Your task to perform on an android device: Open Amazon Image 0: 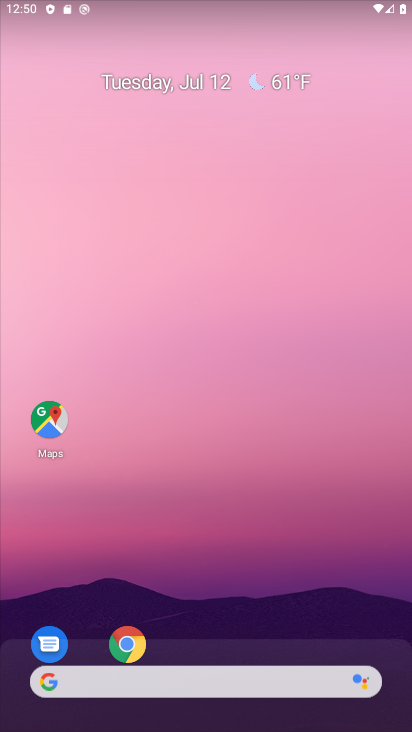
Step 0: click (129, 663)
Your task to perform on an android device: Open Amazon Image 1: 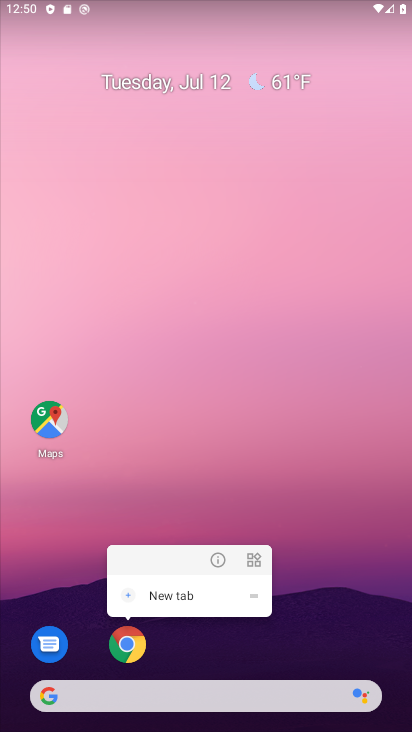
Step 1: click (129, 663)
Your task to perform on an android device: Open Amazon Image 2: 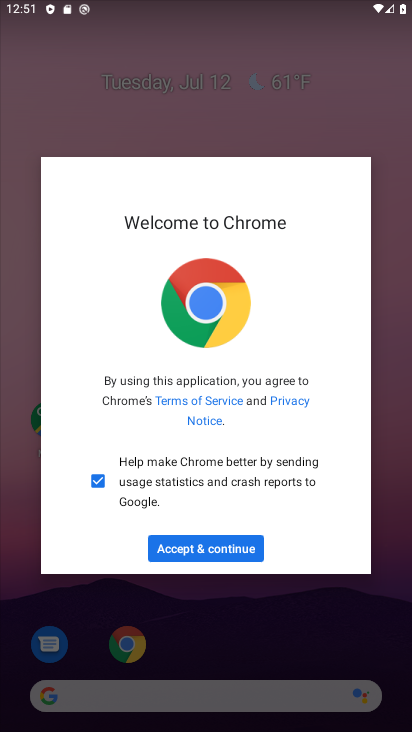
Step 2: click (218, 549)
Your task to perform on an android device: Open Amazon Image 3: 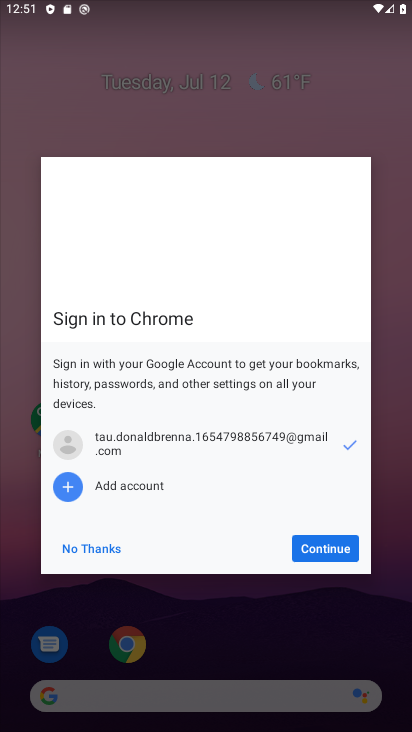
Step 3: click (332, 531)
Your task to perform on an android device: Open Amazon Image 4: 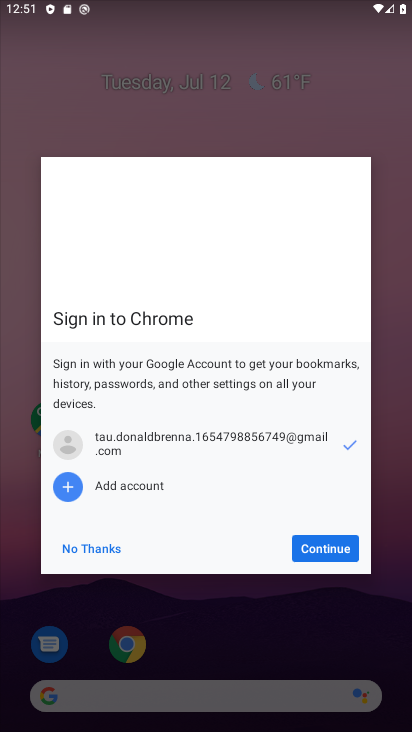
Step 4: click (343, 561)
Your task to perform on an android device: Open Amazon Image 5: 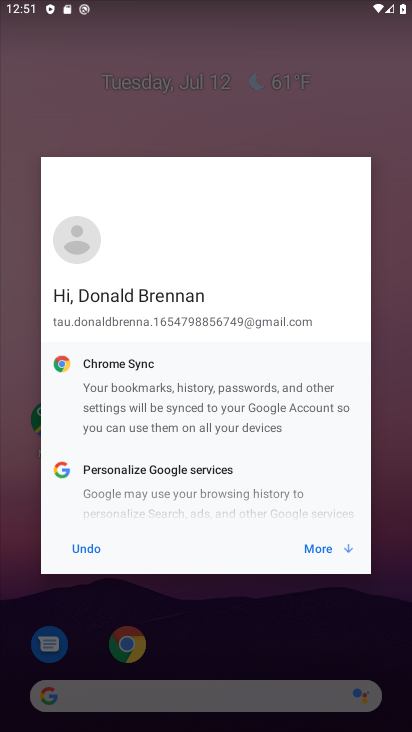
Step 5: click (338, 559)
Your task to perform on an android device: Open Amazon Image 6: 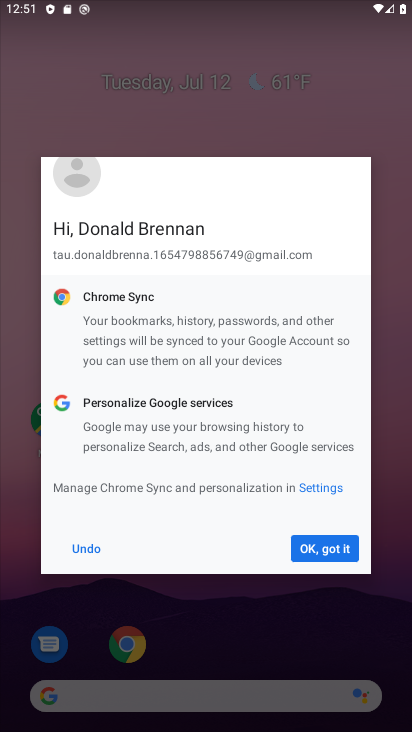
Step 6: click (337, 558)
Your task to perform on an android device: Open Amazon Image 7: 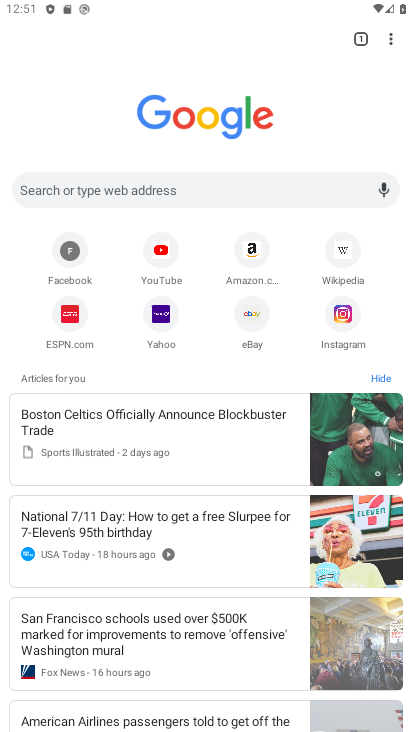
Step 7: click (251, 256)
Your task to perform on an android device: Open Amazon Image 8: 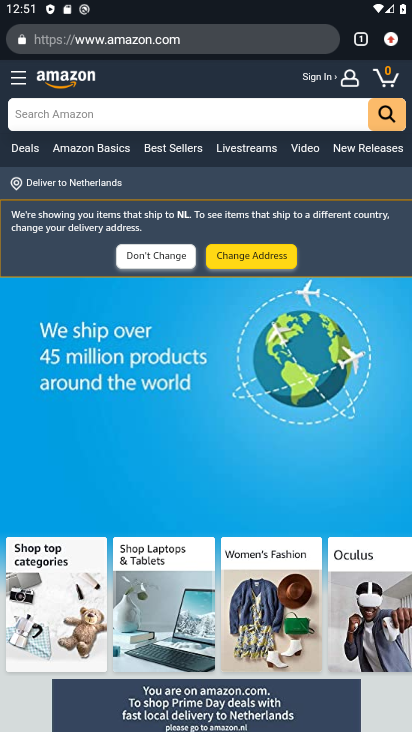
Step 8: task complete